Your task to perform on an android device: Open Amazon Image 0: 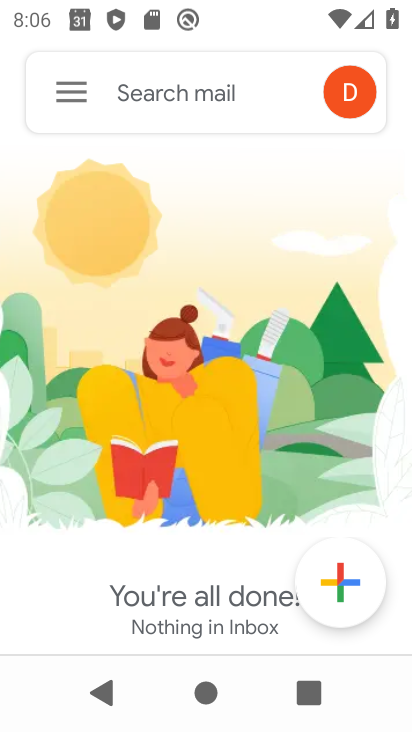
Step 0: press home button
Your task to perform on an android device: Open Amazon Image 1: 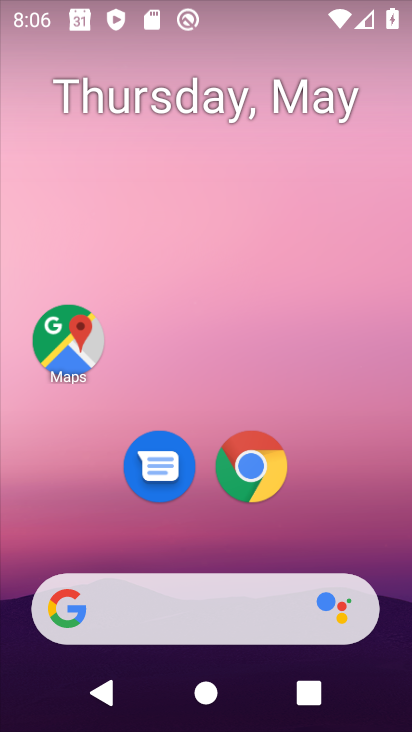
Step 1: click (263, 476)
Your task to perform on an android device: Open Amazon Image 2: 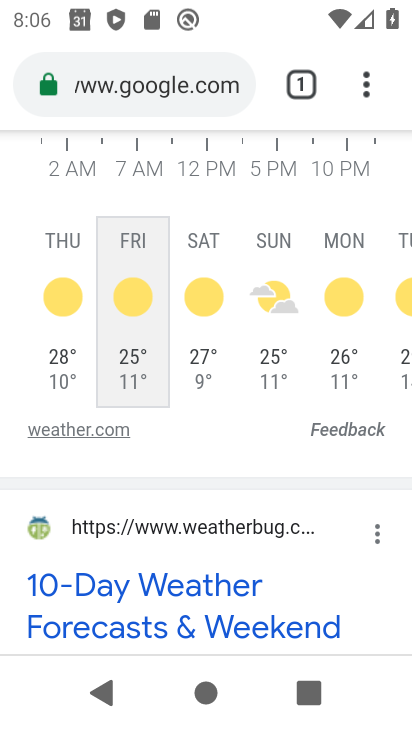
Step 2: click (371, 95)
Your task to perform on an android device: Open Amazon Image 3: 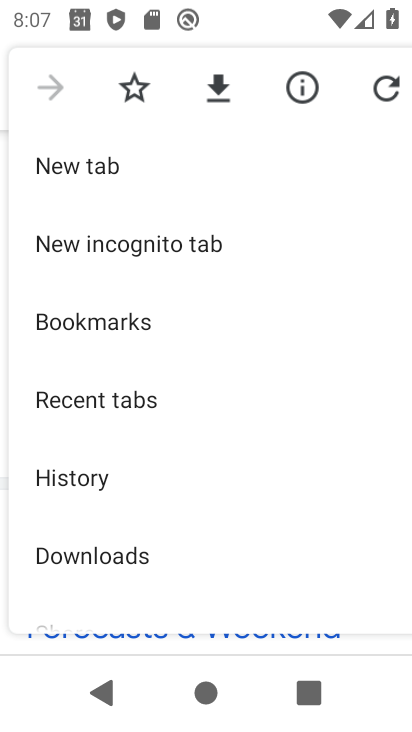
Step 3: click (126, 186)
Your task to perform on an android device: Open Amazon Image 4: 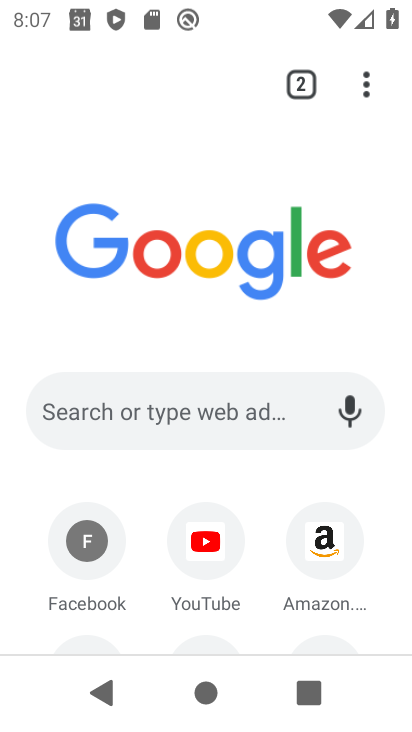
Step 4: click (324, 532)
Your task to perform on an android device: Open Amazon Image 5: 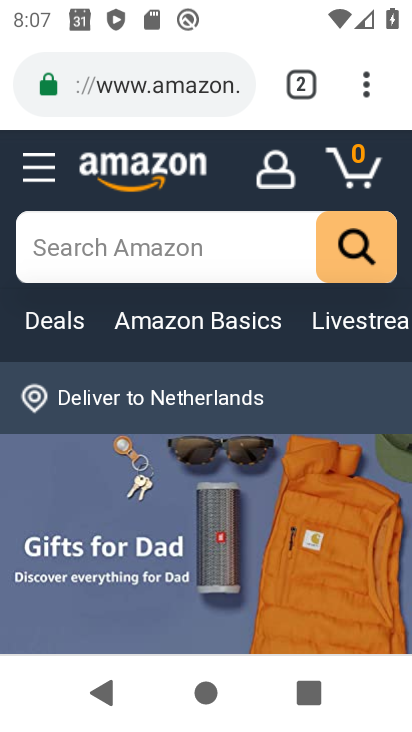
Step 5: task complete